Your task to perform on an android device: move a message to another label in the gmail app Image 0: 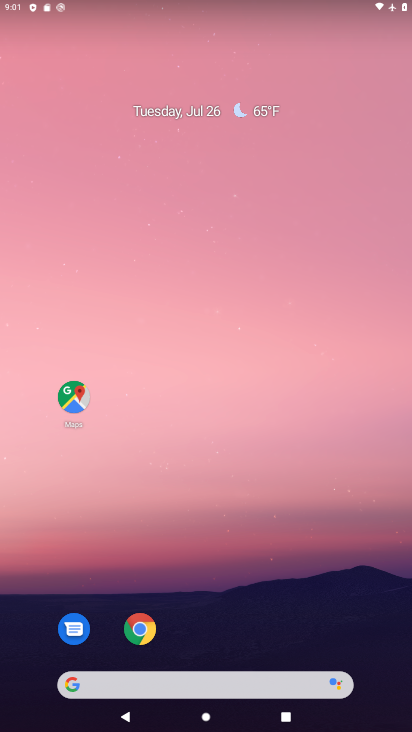
Step 0: drag from (313, 631) to (170, 114)
Your task to perform on an android device: move a message to another label in the gmail app Image 1: 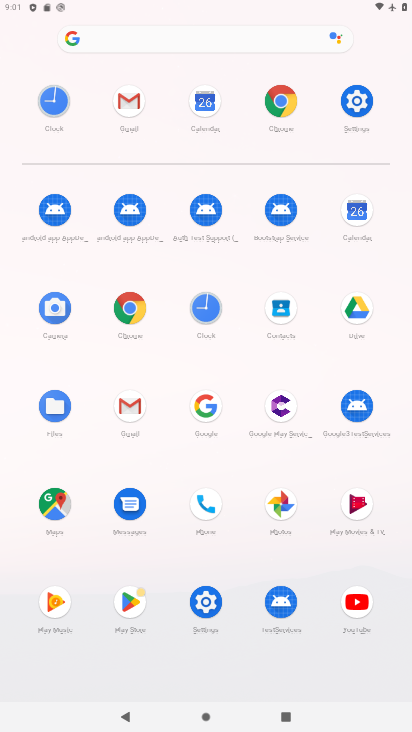
Step 1: click (141, 91)
Your task to perform on an android device: move a message to another label in the gmail app Image 2: 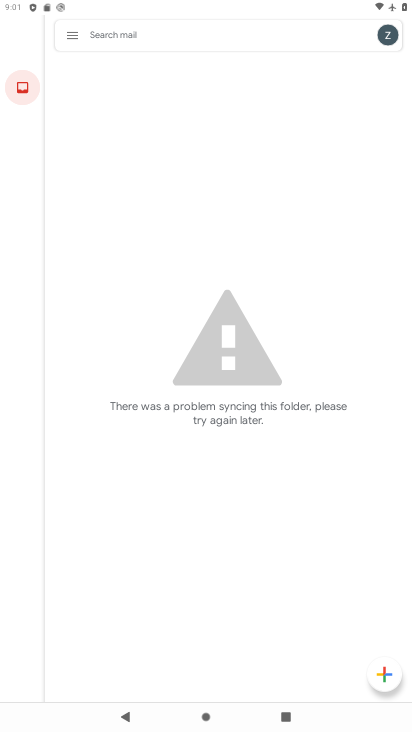
Step 2: click (61, 40)
Your task to perform on an android device: move a message to another label in the gmail app Image 3: 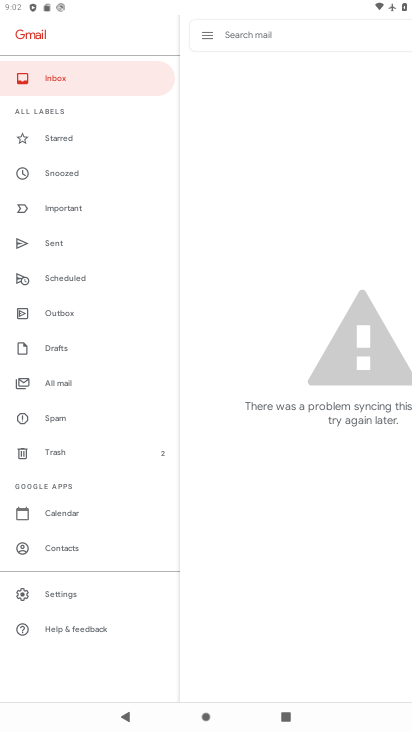
Step 3: click (60, 386)
Your task to perform on an android device: move a message to another label in the gmail app Image 4: 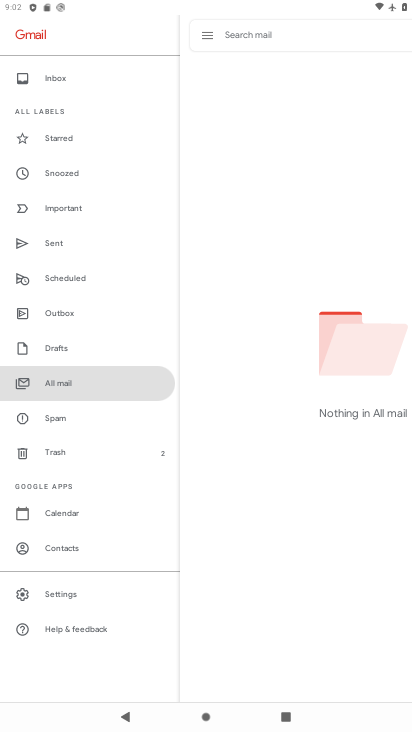
Step 4: task complete